Your task to perform on an android device: open wifi settings Image 0: 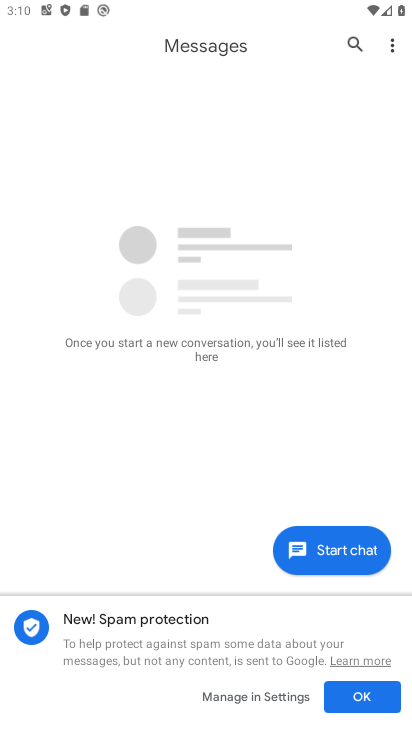
Step 0: press home button
Your task to perform on an android device: open wifi settings Image 1: 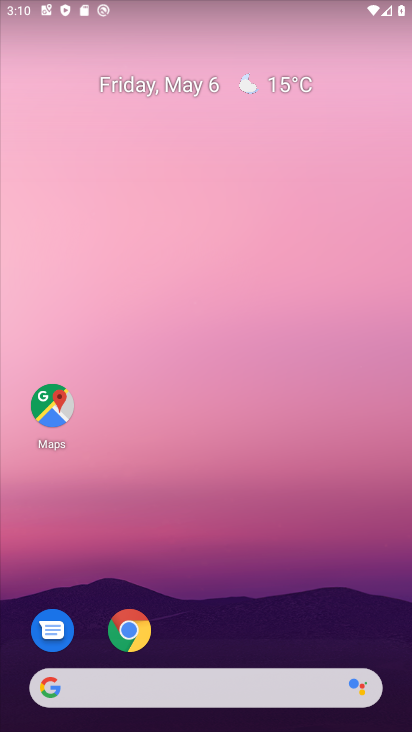
Step 1: drag from (200, 657) to (264, 359)
Your task to perform on an android device: open wifi settings Image 2: 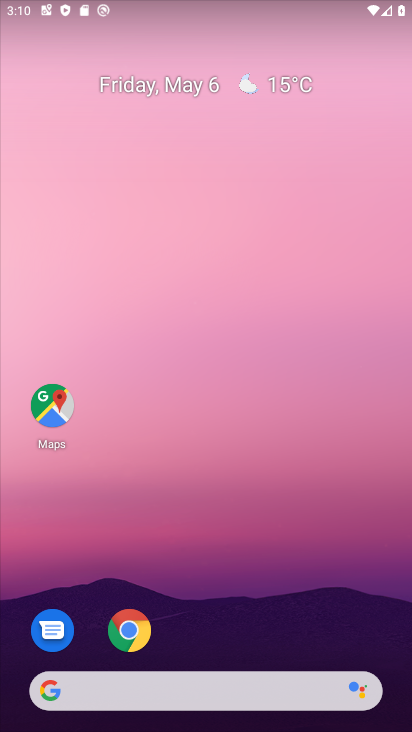
Step 2: drag from (195, 632) to (410, 142)
Your task to perform on an android device: open wifi settings Image 3: 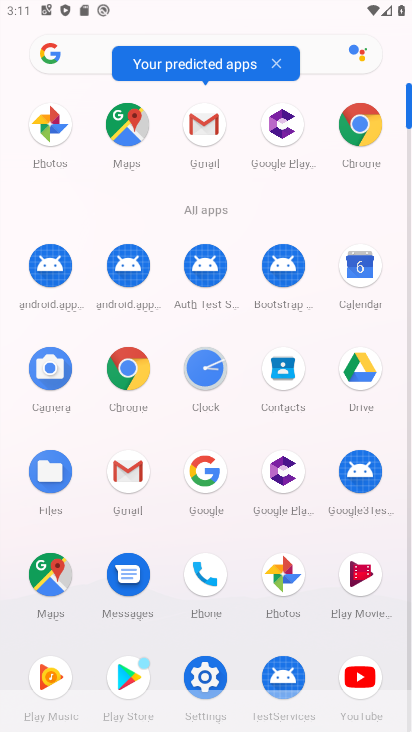
Step 3: click (200, 673)
Your task to perform on an android device: open wifi settings Image 4: 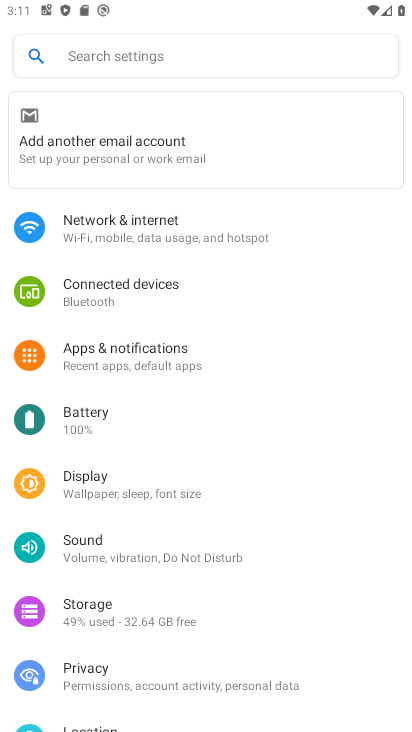
Step 4: click (103, 226)
Your task to perform on an android device: open wifi settings Image 5: 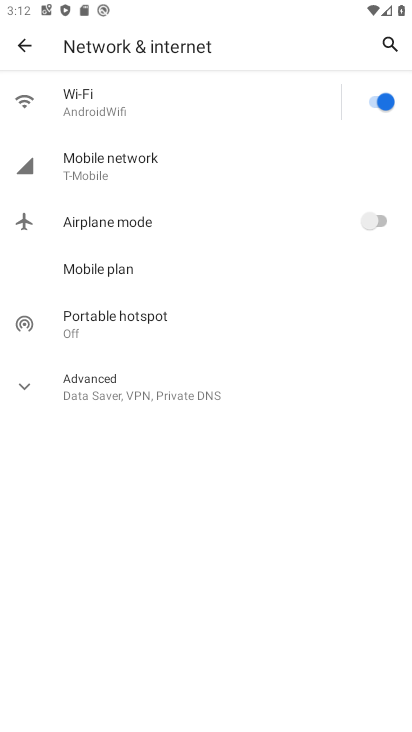
Step 5: click (117, 124)
Your task to perform on an android device: open wifi settings Image 6: 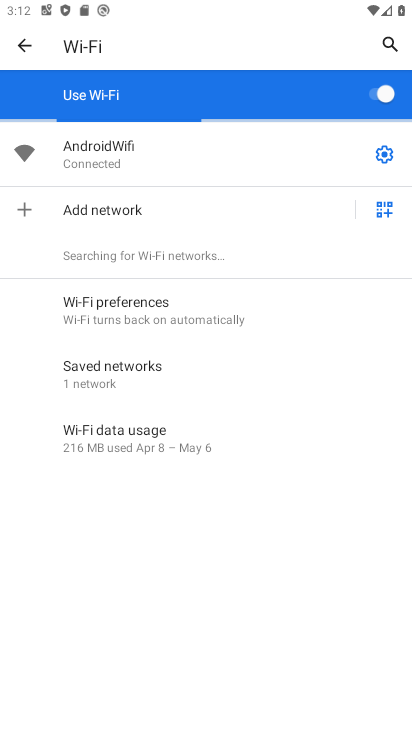
Step 6: task complete